Your task to perform on an android device: open wifi settings Image 0: 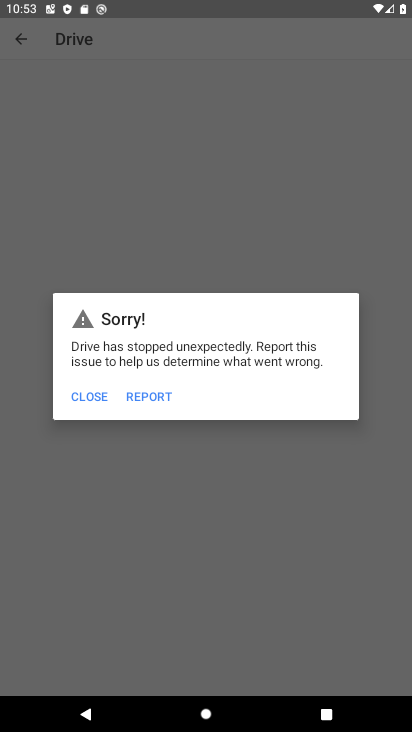
Step 0: press home button
Your task to perform on an android device: open wifi settings Image 1: 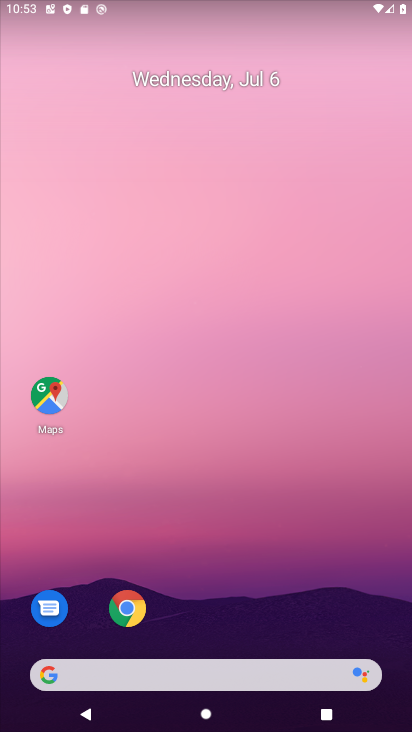
Step 1: drag from (163, 684) to (164, 292)
Your task to perform on an android device: open wifi settings Image 2: 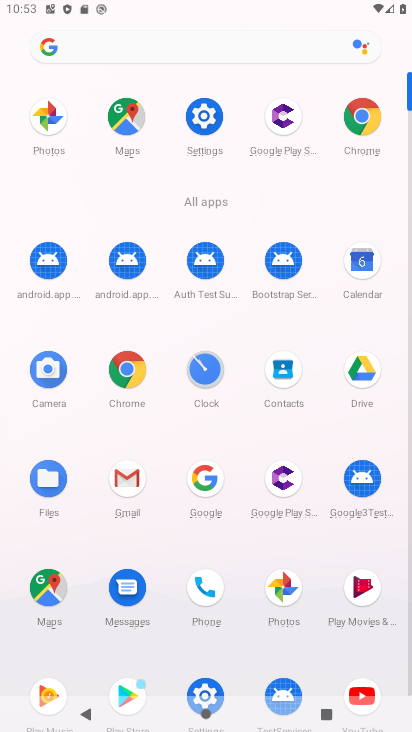
Step 2: click (195, 126)
Your task to perform on an android device: open wifi settings Image 3: 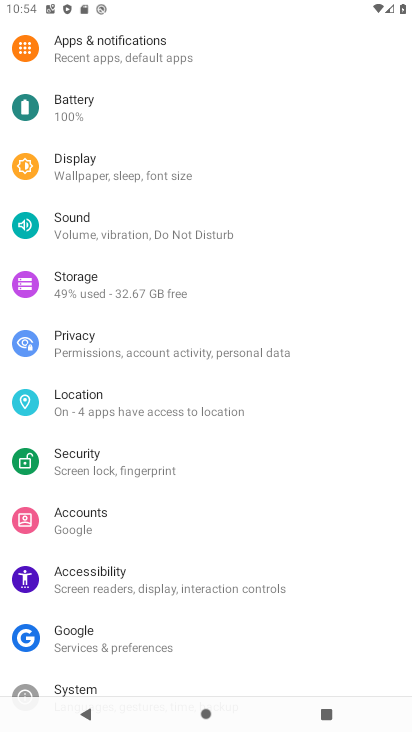
Step 3: drag from (148, 51) to (212, 437)
Your task to perform on an android device: open wifi settings Image 4: 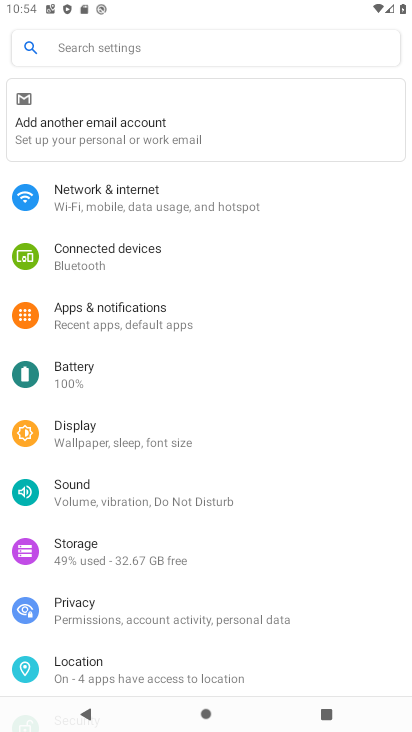
Step 4: click (87, 196)
Your task to perform on an android device: open wifi settings Image 5: 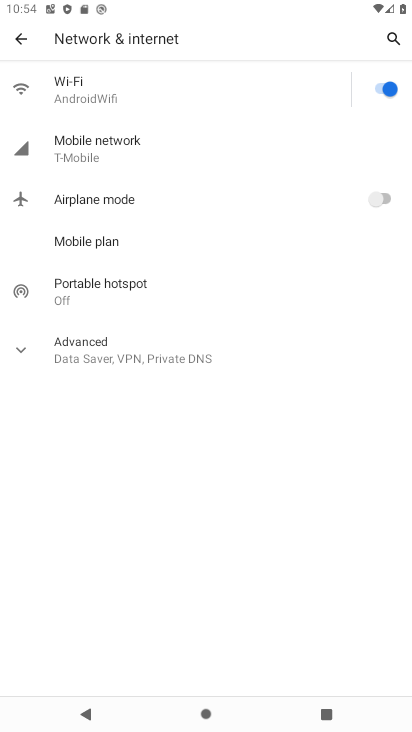
Step 5: click (74, 339)
Your task to perform on an android device: open wifi settings Image 6: 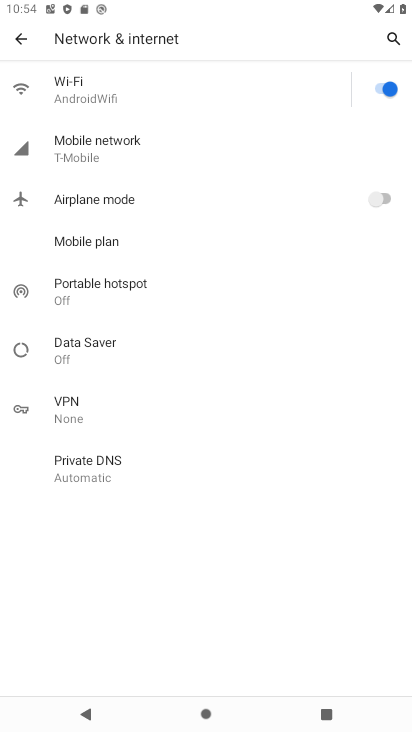
Step 6: click (68, 85)
Your task to perform on an android device: open wifi settings Image 7: 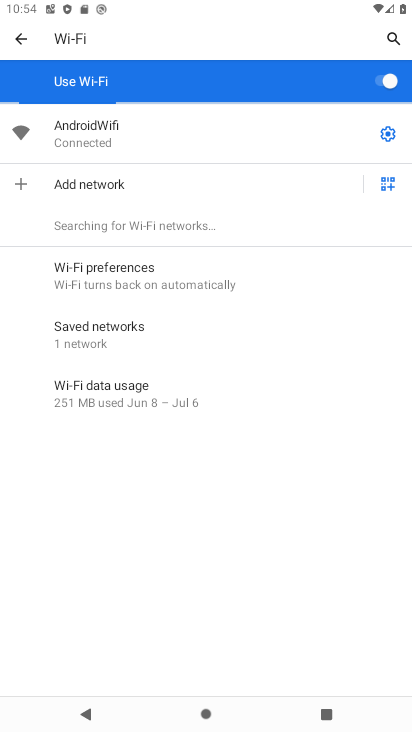
Step 7: click (392, 134)
Your task to perform on an android device: open wifi settings Image 8: 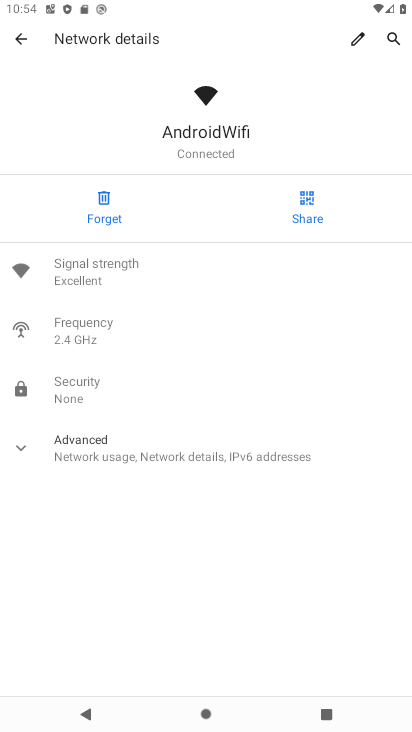
Step 8: click (135, 457)
Your task to perform on an android device: open wifi settings Image 9: 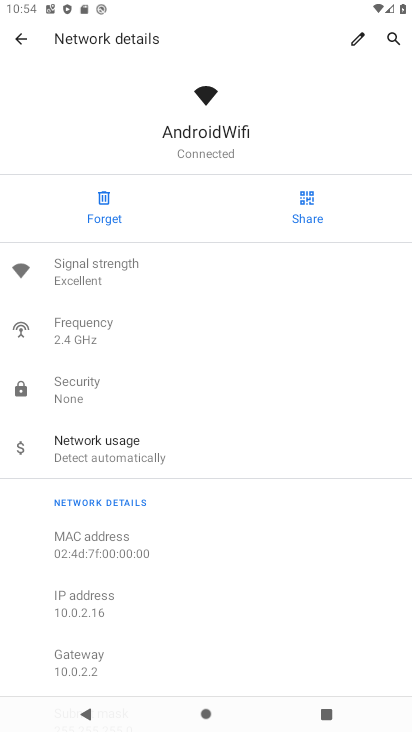
Step 9: task complete